Your task to perform on an android device: Open accessibility settings Image 0: 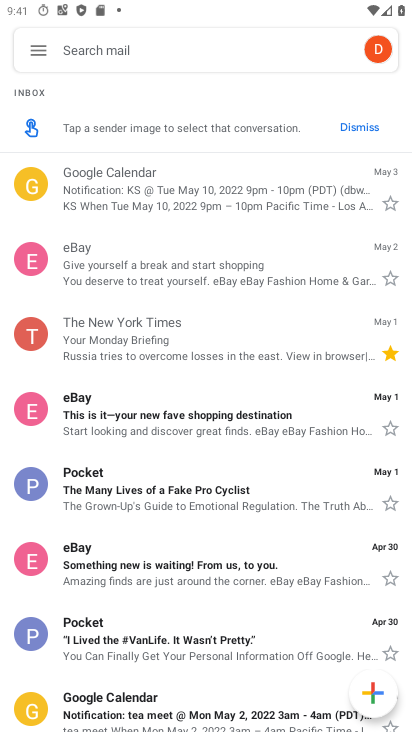
Step 0: press home button
Your task to perform on an android device: Open accessibility settings Image 1: 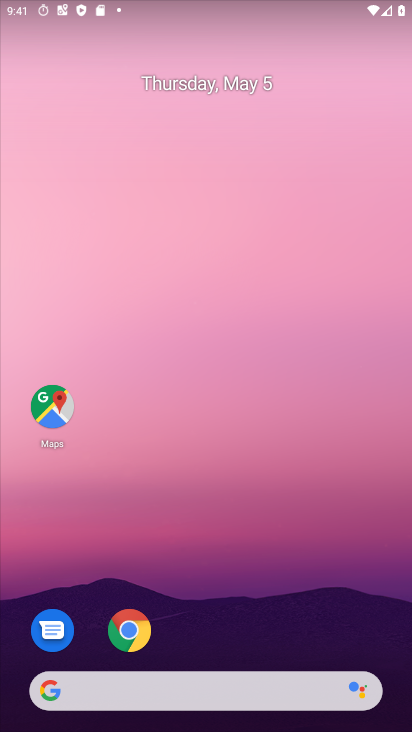
Step 1: drag from (198, 556) to (20, 136)
Your task to perform on an android device: Open accessibility settings Image 2: 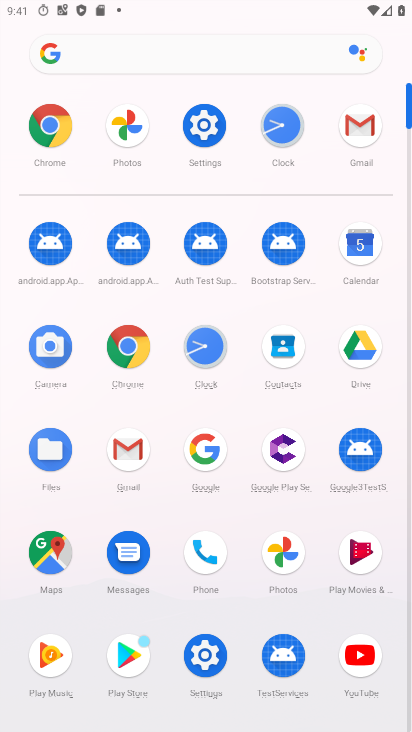
Step 2: click (195, 125)
Your task to perform on an android device: Open accessibility settings Image 3: 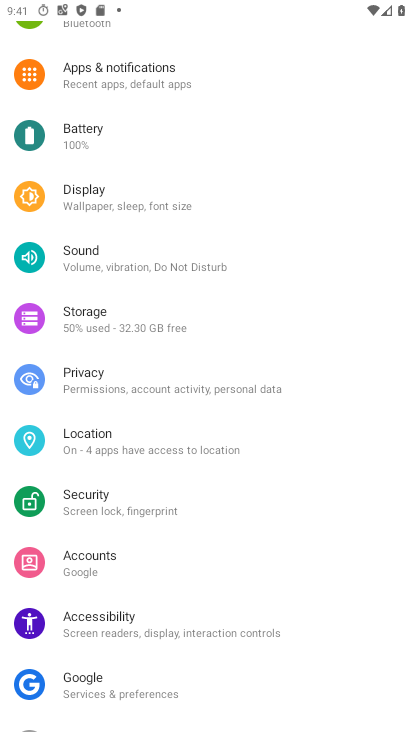
Step 3: click (143, 623)
Your task to perform on an android device: Open accessibility settings Image 4: 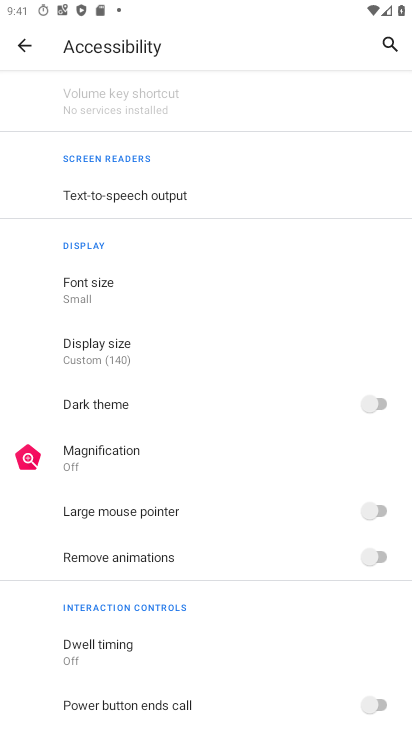
Step 4: task complete